Your task to perform on an android device: turn on airplane mode Image 0: 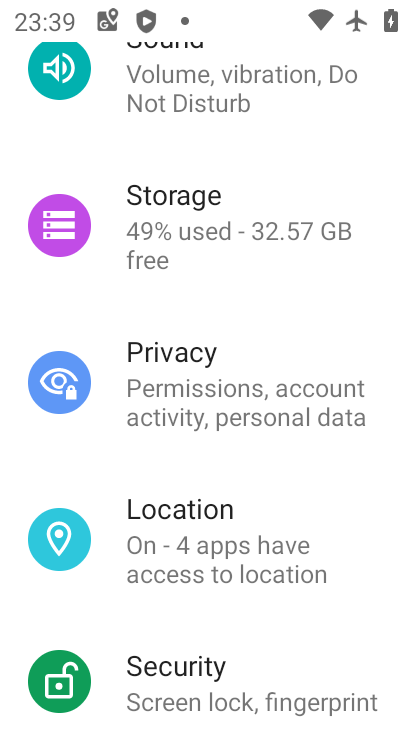
Step 0: press home button
Your task to perform on an android device: turn on airplane mode Image 1: 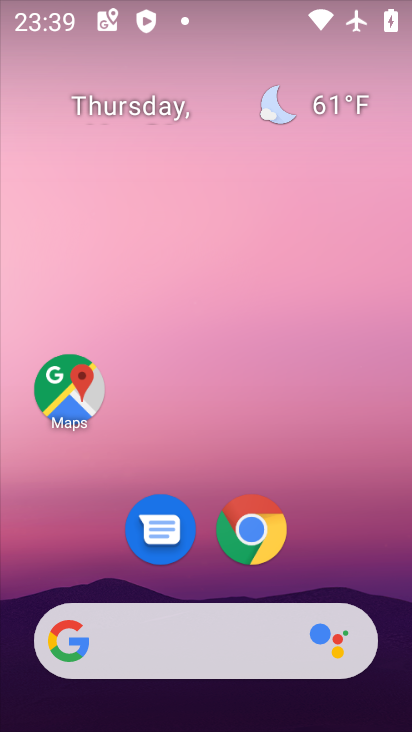
Step 1: drag from (351, 530) to (356, 260)
Your task to perform on an android device: turn on airplane mode Image 2: 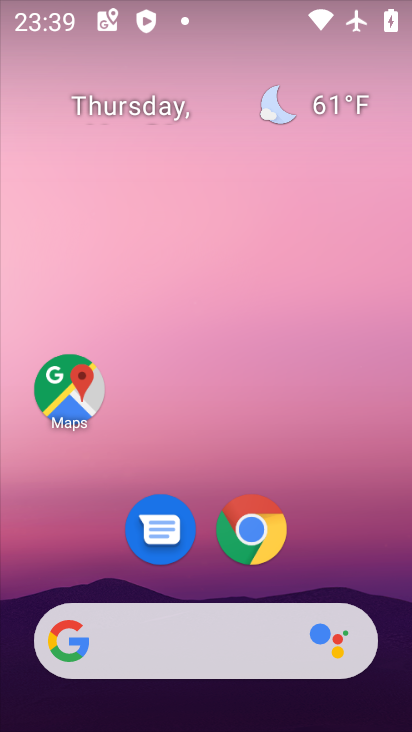
Step 2: drag from (367, 556) to (300, 0)
Your task to perform on an android device: turn on airplane mode Image 3: 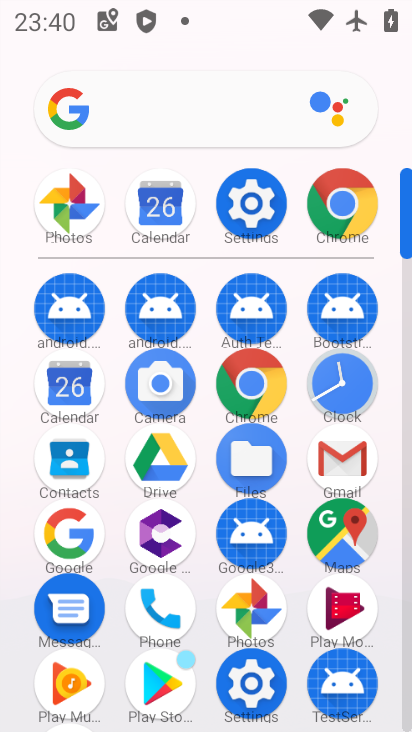
Step 3: click (251, 191)
Your task to perform on an android device: turn on airplane mode Image 4: 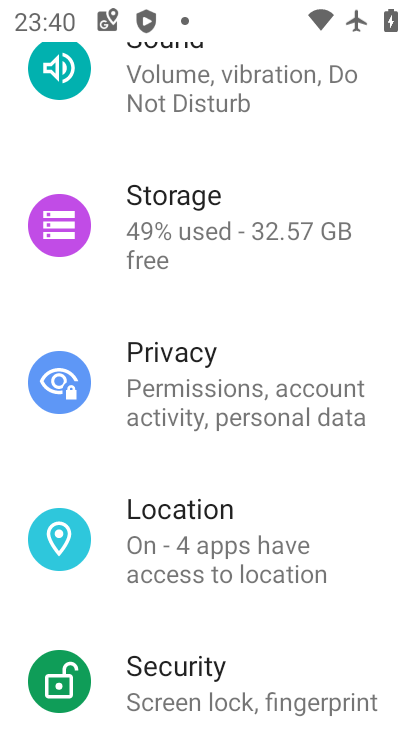
Step 4: drag from (217, 218) to (357, 710)
Your task to perform on an android device: turn on airplane mode Image 5: 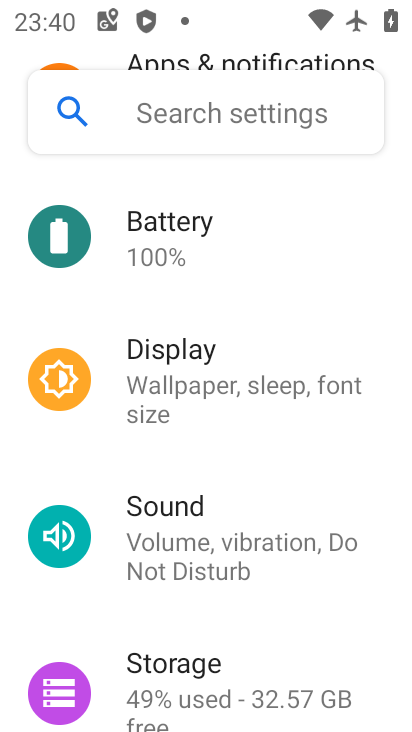
Step 5: drag from (280, 308) to (399, 704)
Your task to perform on an android device: turn on airplane mode Image 6: 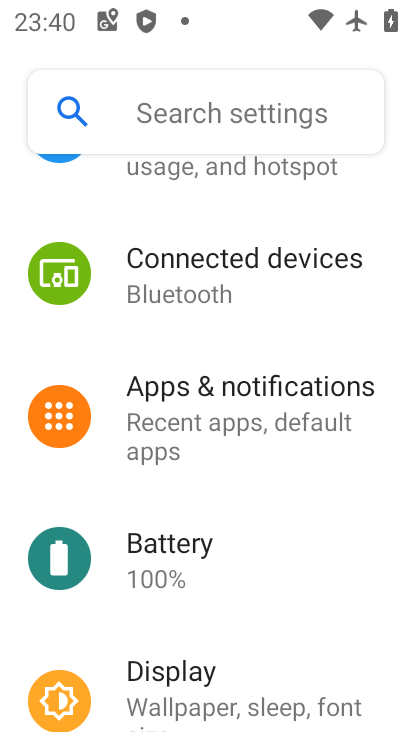
Step 6: drag from (289, 257) to (378, 716)
Your task to perform on an android device: turn on airplane mode Image 7: 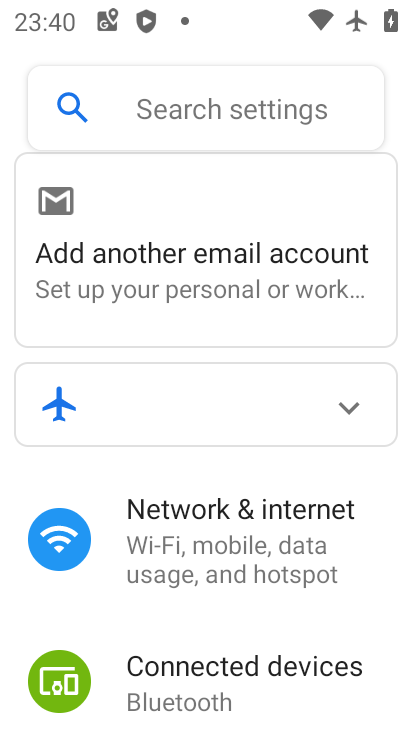
Step 7: click (302, 573)
Your task to perform on an android device: turn on airplane mode Image 8: 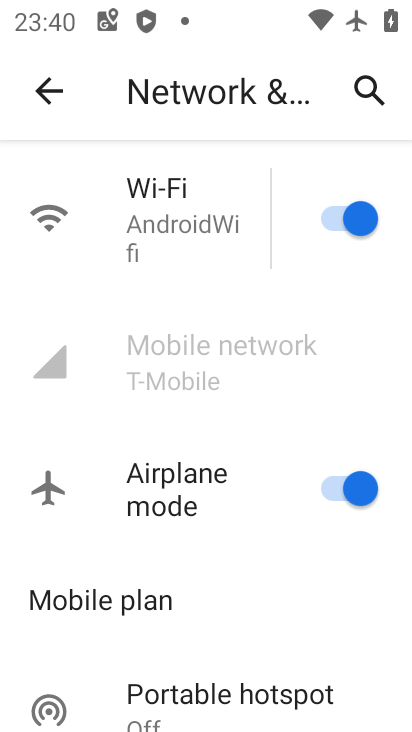
Step 8: task complete